Your task to perform on an android device: Open my contact list Image 0: 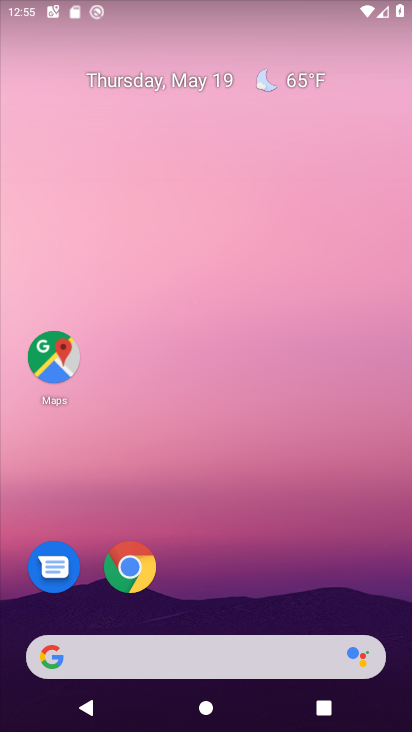
Step 0: drag from (266, 557) to (256, 12)
Your task to perform on an android device: Open my contact list Image 1: 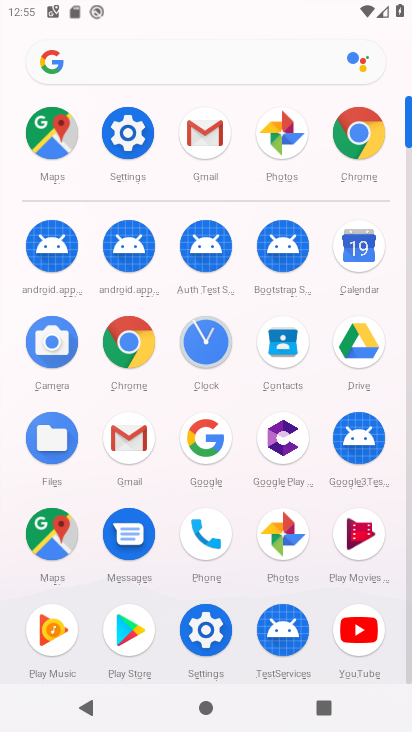
Step 1: click (281, 349)
Your task to perform on an android device: Open my contact list Image 2: 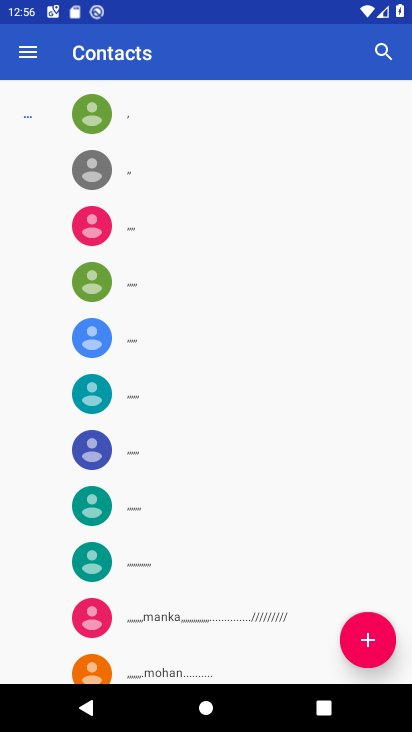
Step 2: task complete